Your task to perform on an android device: What's the weather today? Image 0: 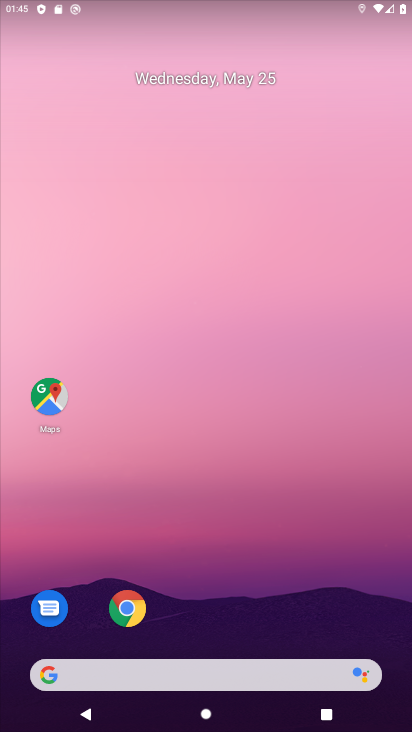
Step 0: click (228, 193)
Your task to perform on an android device: What's the weather today? Image 1: 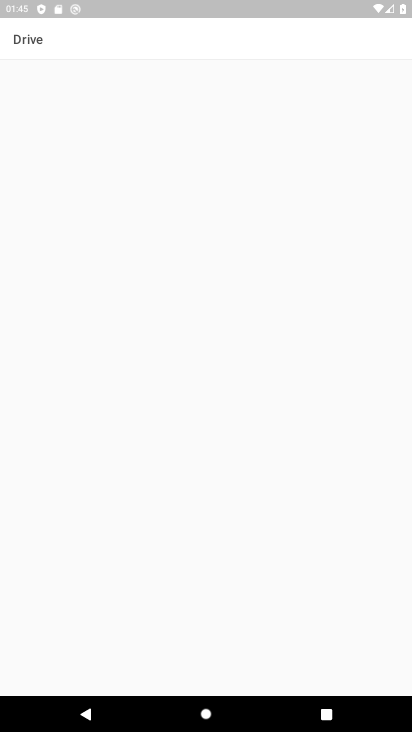
Step 1: press home button
Your task to perform on an android device: What's the weather today? Image 2: 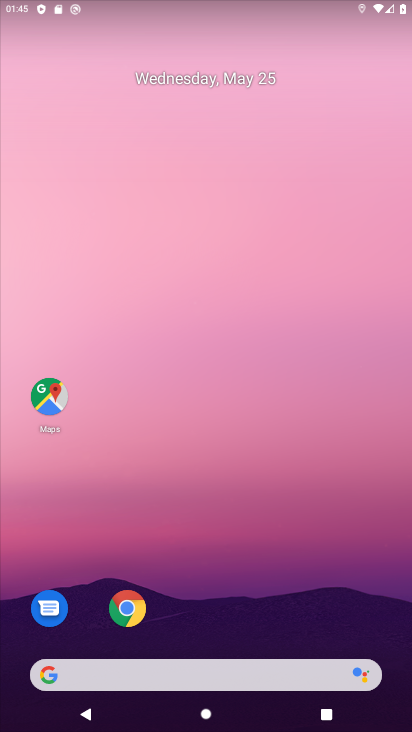
Step 2: click (126, 607)
Your task to perform on an android device: What's the weather today? Image 3: 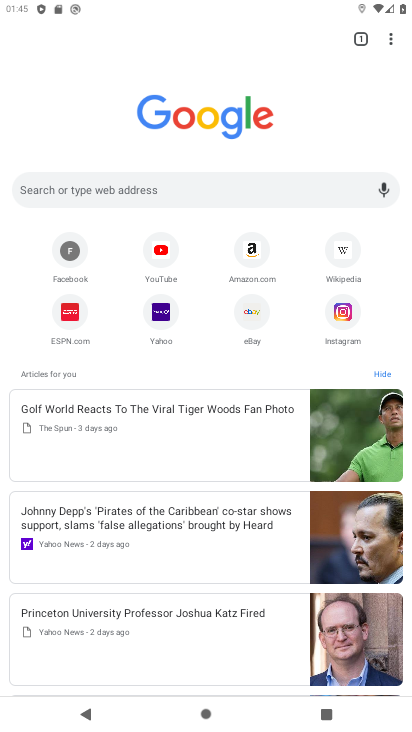
Step 3: click (204, 196)
Your task to perform on an android device: What's the weather today? Image 4: 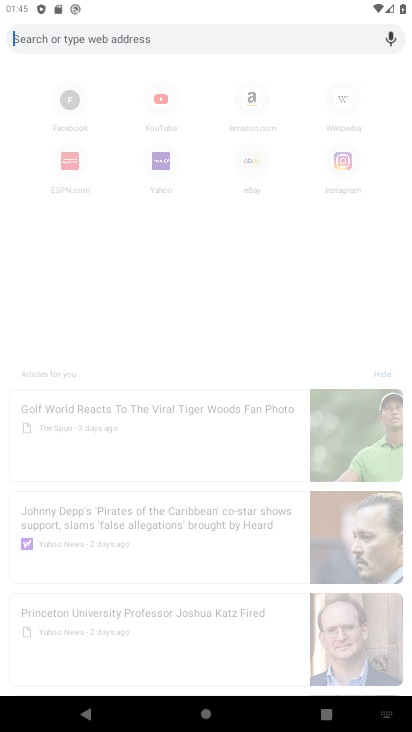
Step 4: drag from (234, 721) to (348, 727)
Your task to perform on an android device: What's the weather today? Image 5: 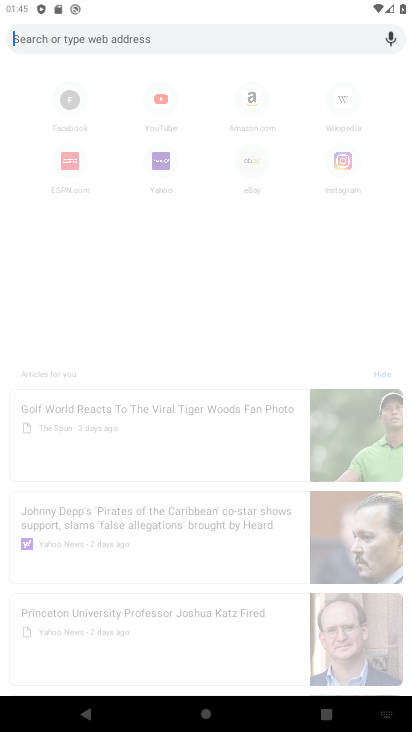
Step 5: type "What's the weather today?"
Your task to perform on an android device: What's the weather today? Image 6: 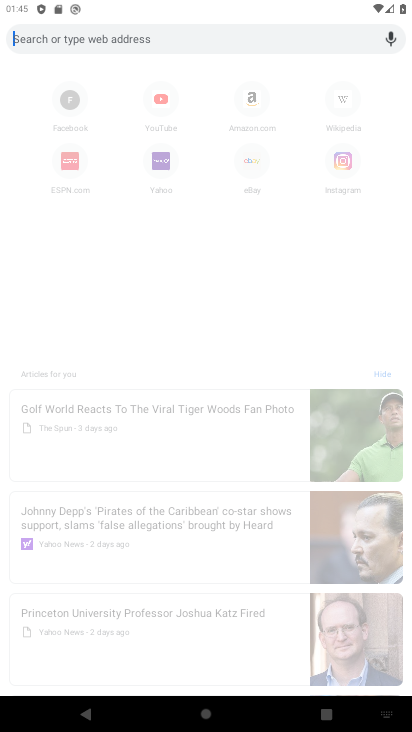
Step 6: drag from (348, 727) to (386, 13)
Your task to perform on an android device: What's the weather today? Image 7: 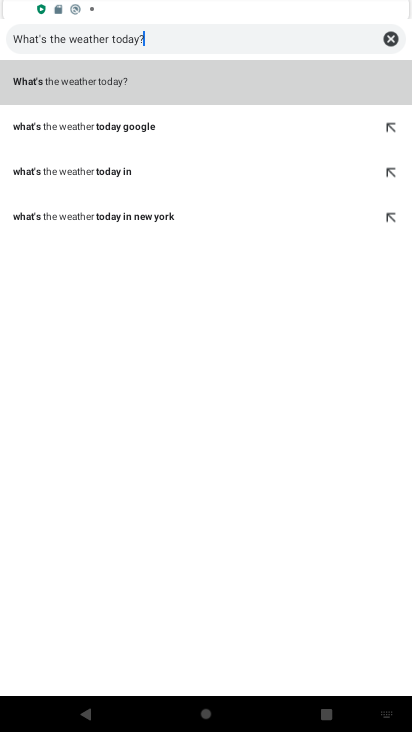
Step 7: click (99, 92)
Your task to perform on an android device: What's the weather today? Image 8: 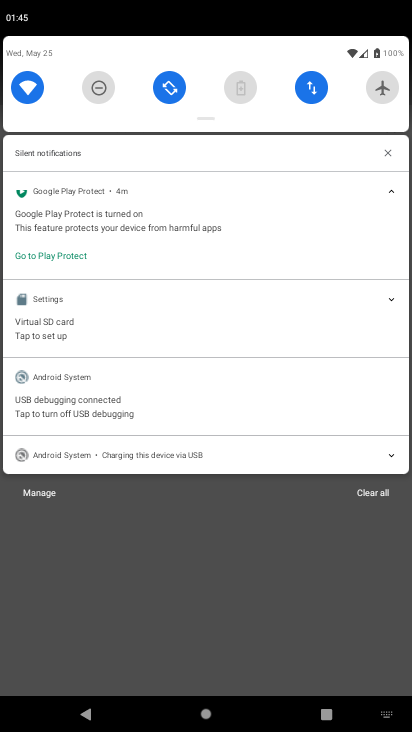
Step 8: click (154, 553)
Your task to perform on an android device: What's the weather today? Image 9: 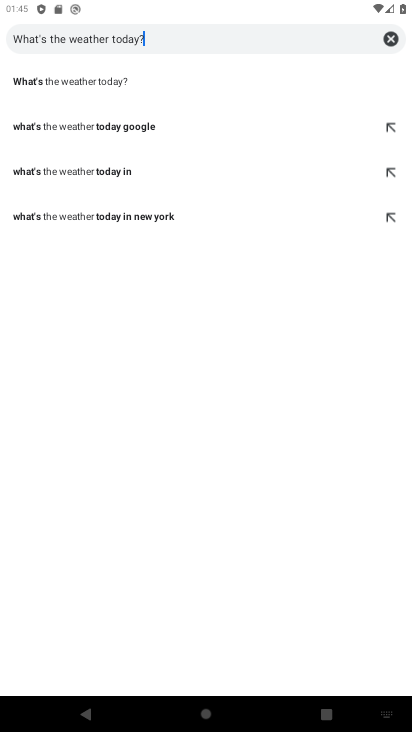
Step 9: click (113, 84)
Your task to perform on an android device: What's the weather today? Image 10: 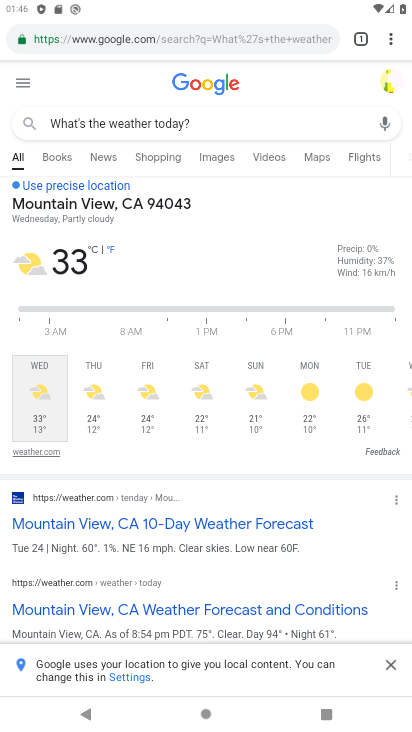
Step 10: task complete